Your task to perform on an android device: When is my next appointment? Image 0: 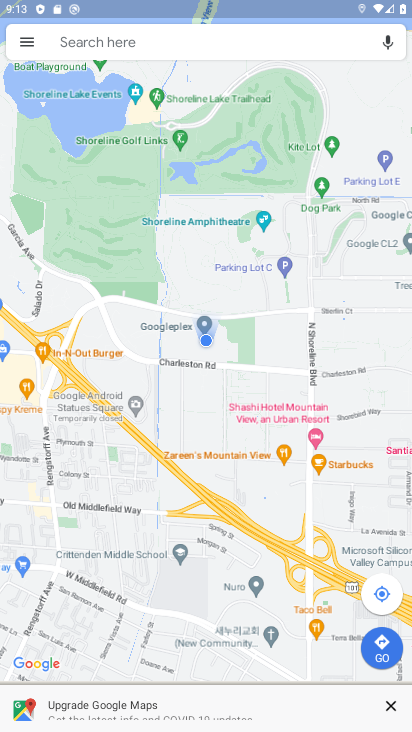
Step 0: click (192, 310)
Your task to perform on an android device: When is my next appointment? Image 1: 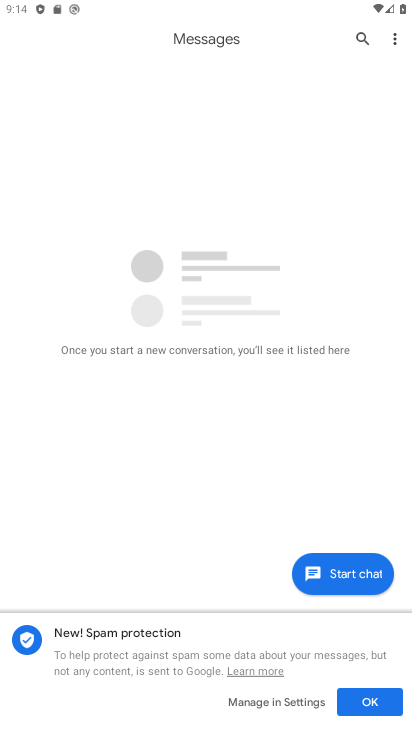
Step 1: press home button
Your task to perform on an android device: When is my next appointment? Image 2: 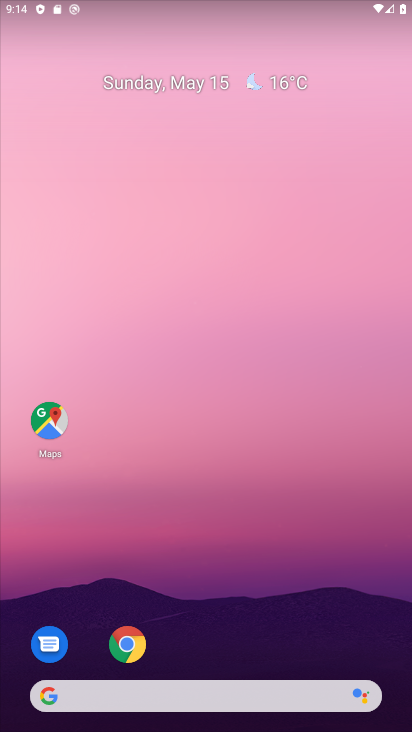
Step 2: drag from (233, 680) to (221, 265)
Your task to perform on an android device: When is my next appointment? Image 3: 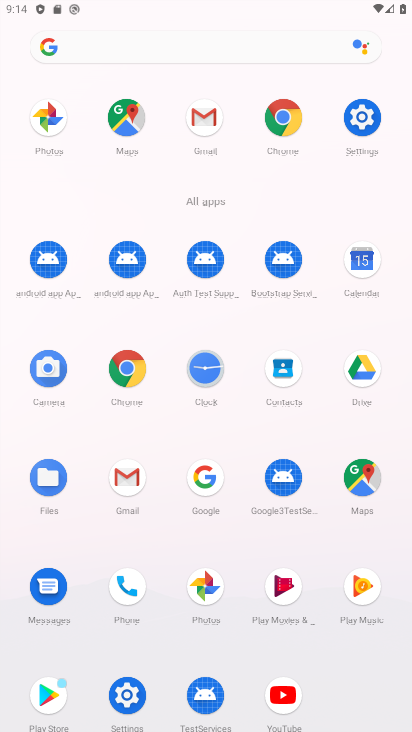
Step 3: click (365, 255)
Your task to perform on an android device: When is my next appointment? Image 4: 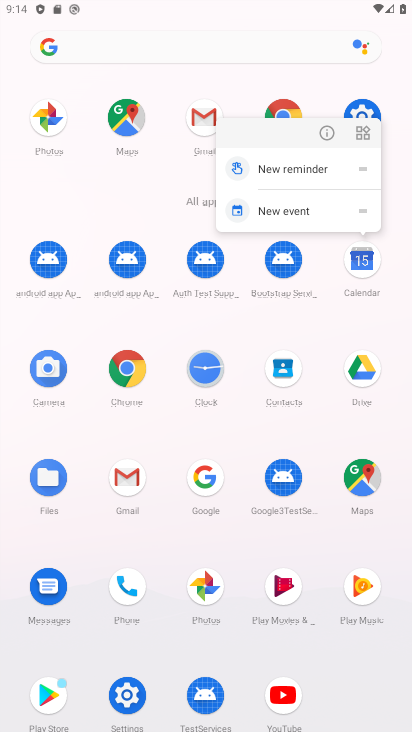
Step 4: click (355, 272)
Your task to perform on an android device: When is my next appointment? Image 5: 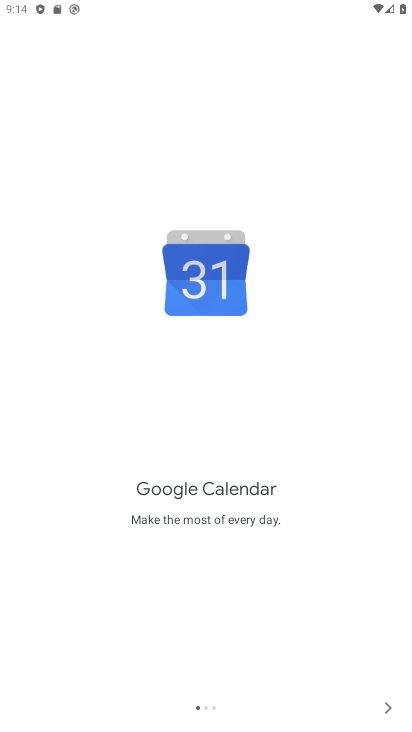
Step 5: click (379, 709)
Your task to perform on an android device: When is my next appointment? Image 6: 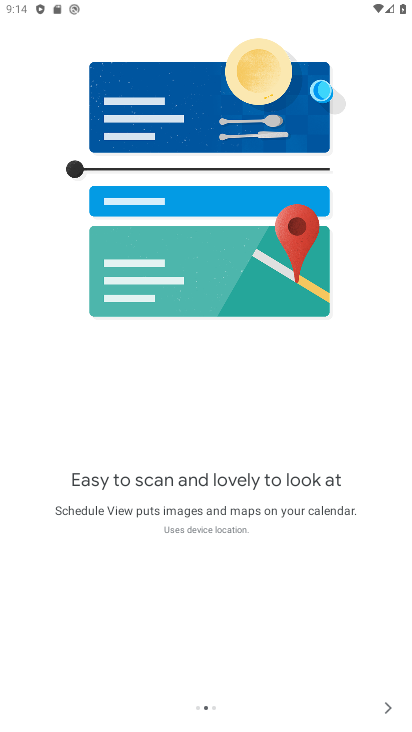
Step 6: click (379, 709)
Your task to perform on an android device: When is my next appointment? Image 7: 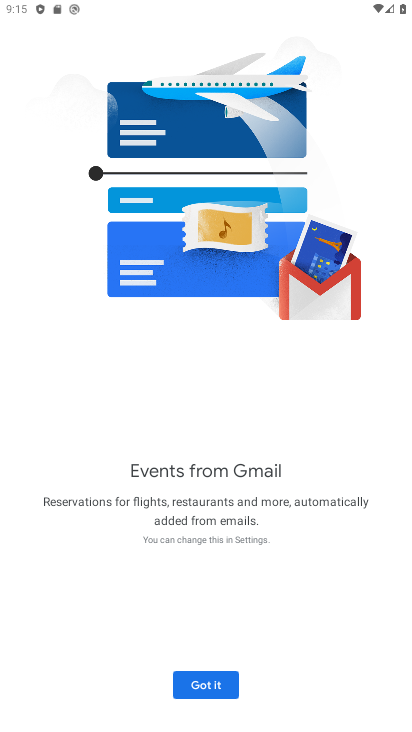
Step 7: click (199, 689)
Your task to perform on an android device: When is my next appointment? Image 8: 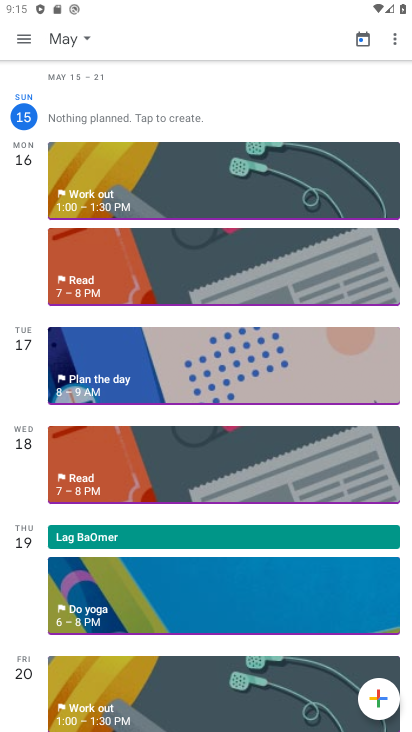
Step 8: click (99, 199)
Your task to perform on an android device: When is my next appointment? Image 9: 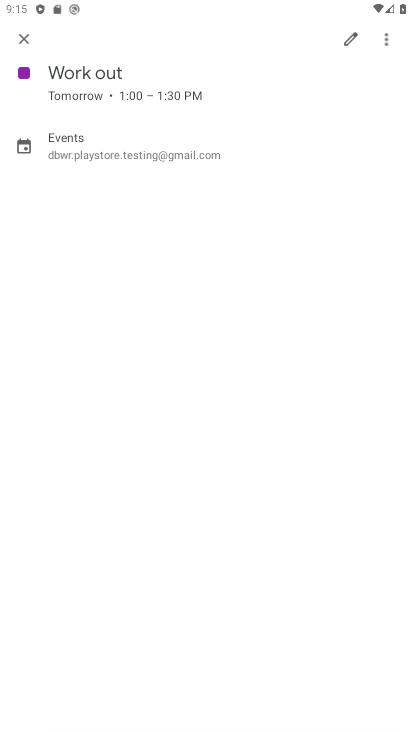
Step 9: task complete